Your task to perform on an android device: allow cookies in the chrome app Image 0: 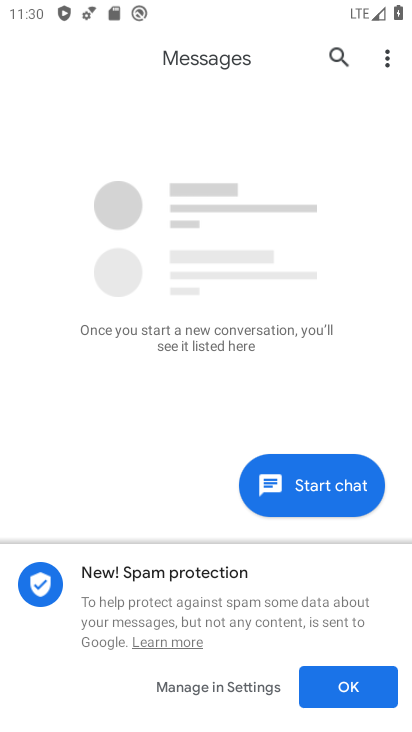
Step 0: press home button
Your task to perform on an android device: allow cookies in the chrome app Image 1: 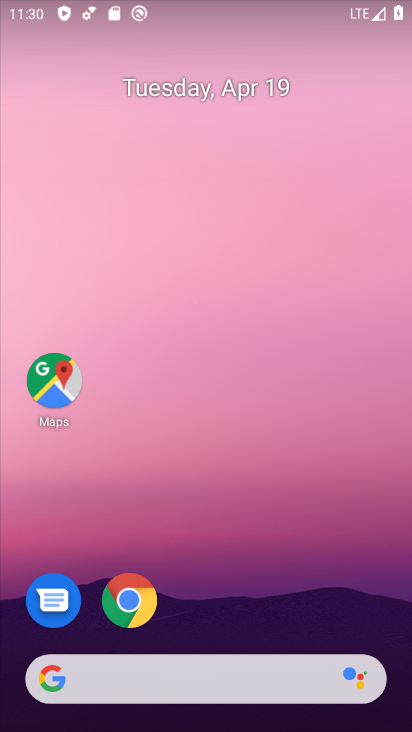
Step 1: click (132, 605)
Your task to perform on an android device: allow cookies in the chrome app Image 2: 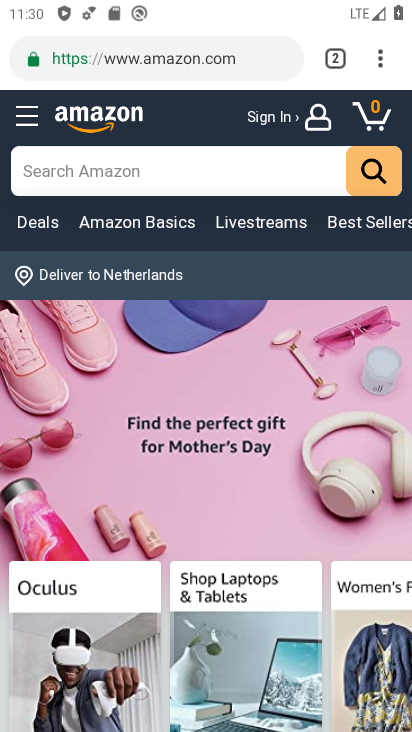
Step 2: click (379, 52)
Your task to perform on an android device: allow cookies in the chrome app Image 3: 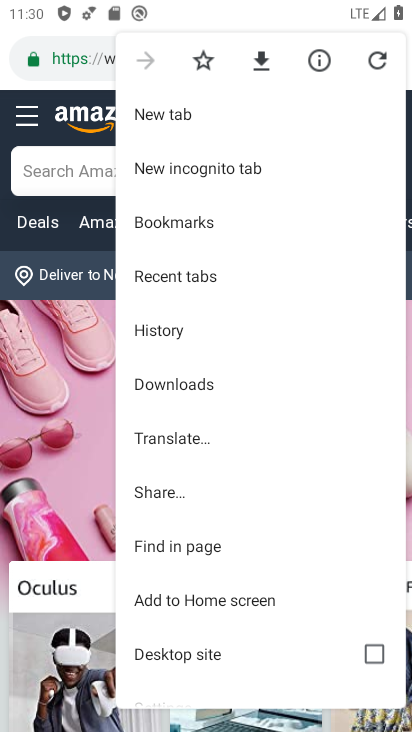
Step 3: drag from (282, 598) to (253, 213)
Your task to perform on an android device: allow cookies in the chrome app Image 4: 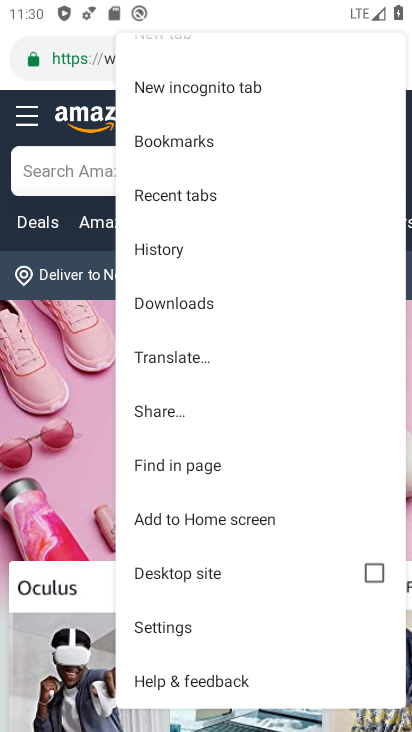
Step 4: click (167, 628)
Your task to perform on an android device: allow cookies in the chrome app Image 5: 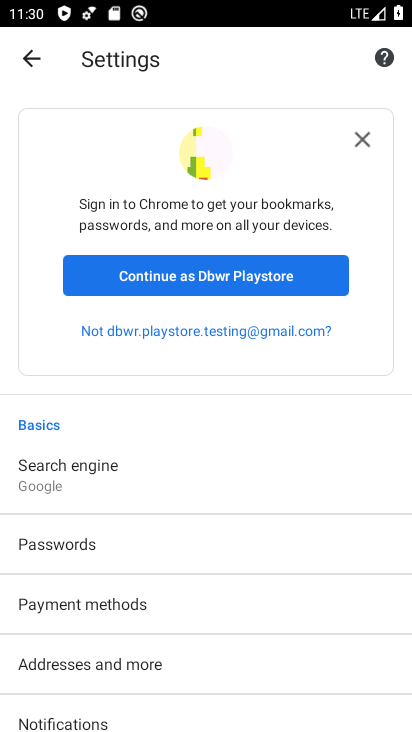
Step 5: drag from (208, 614) to (196, 104)
Your task to perform on an android device: allow cookies in the chrome app Image 6: 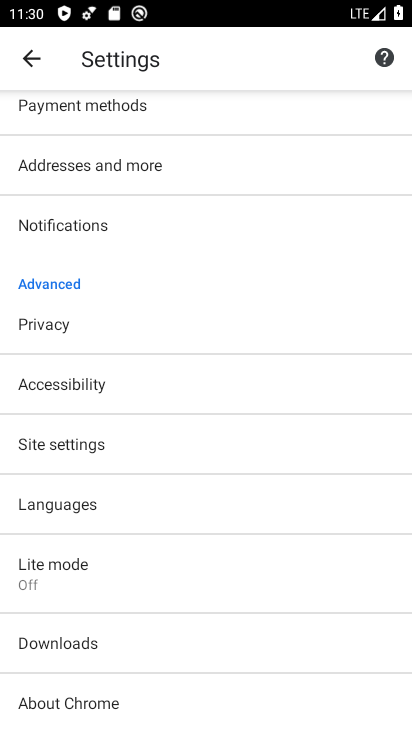
Step 6: click (53, 450)
Your task to perform on an android device: allow cookies in the chrome app Image 7: 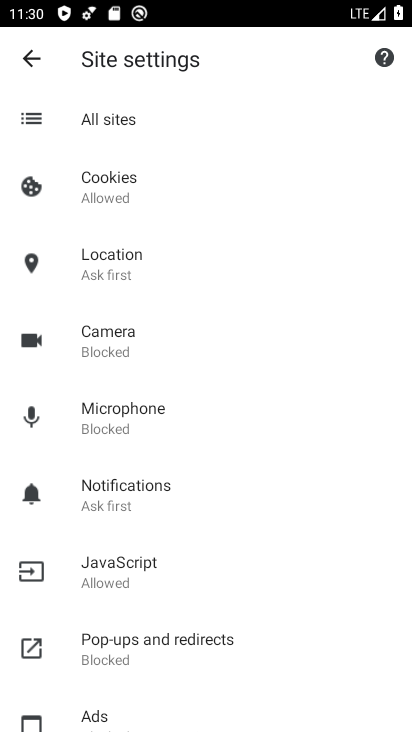
Step 7: click (96, 190)
Your task to perform on an android device: allow cookies in the chrome app Image 8: 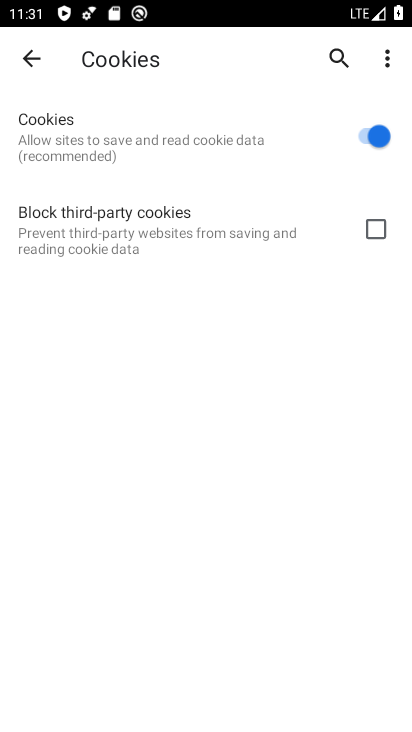
Step 8: task complete